Your task to perform on an android device: turn off data saver in the chrome app Image 0: 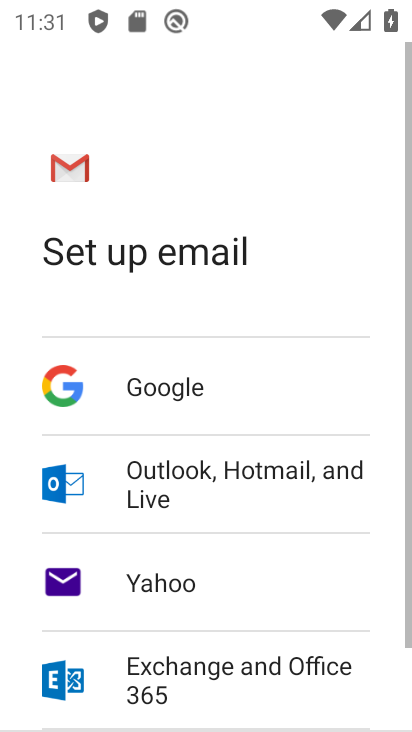
Step 0: press back button
Your task to perform on an android device: turn off data saver in the chrome app Image 1: 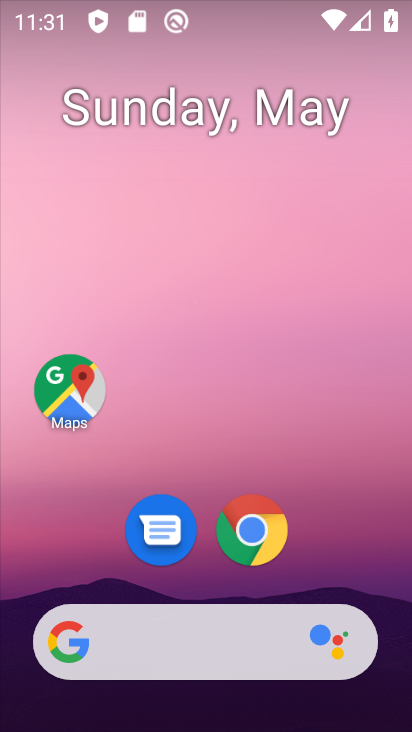
Step 1: click (243, 542)
Your task to perform on an android device: turn off data saver in the chrome app Image 2: 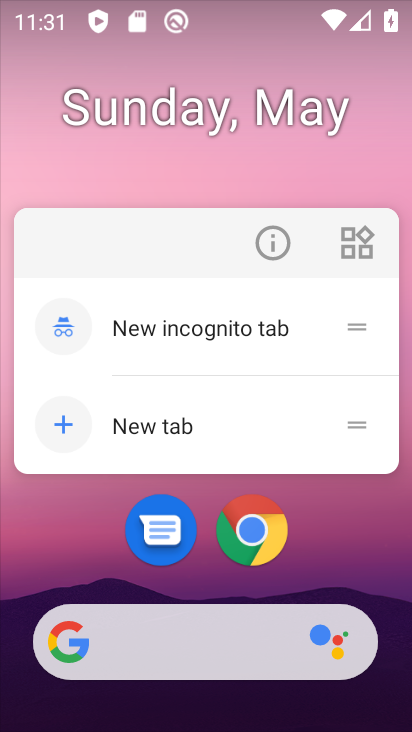
Step 2: click (263, 522)
Your task to perform on an android device: turn off data saver in the chrome app Image 3: 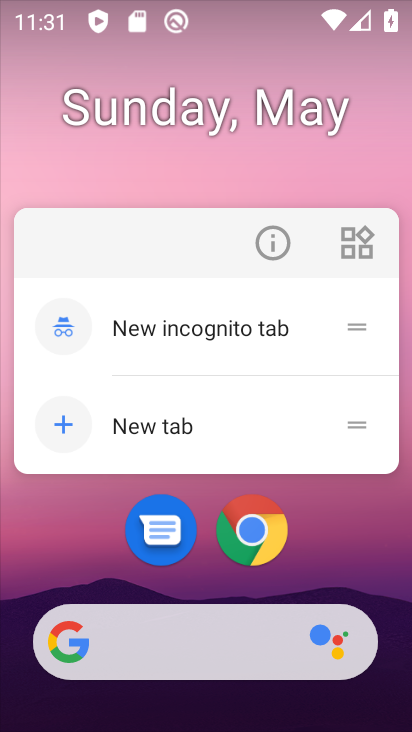
Step 3: click (264, 519)
Your task to perform on an android device: turn off data saver in the chrome app Image 4: 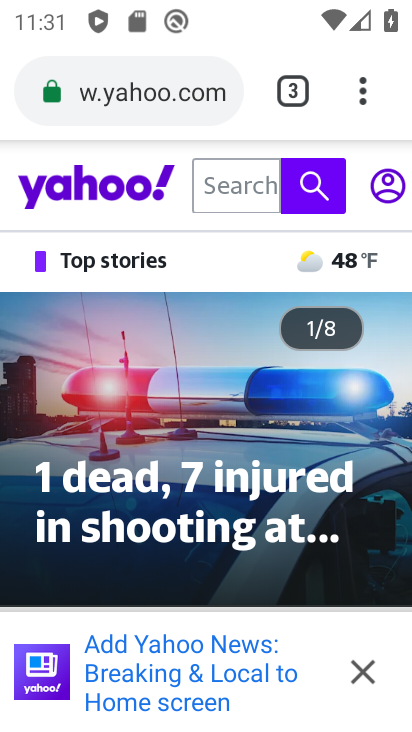
Step 4: drag from (359, 81) to (119, 551)
Your task to perform on an android device: turn off data saver in the chrome app Image 5: 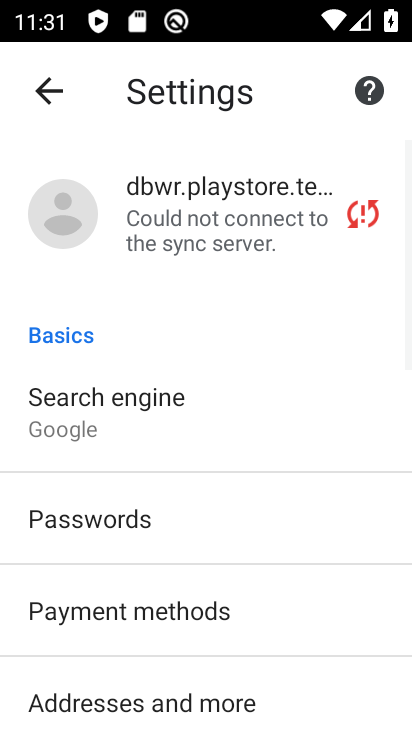
Step 5: drag from (115, 616) to (233, 111)
Your task to perform on an android device: turn off data saver in the chrome app Image 6: 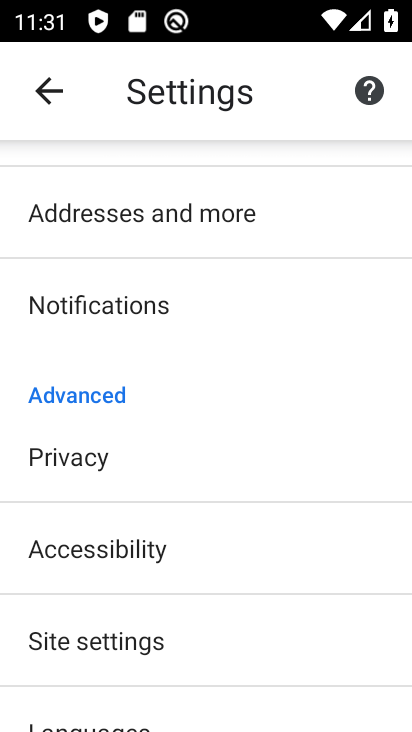
Step 6: click (111, 640)
Your task to perform on an android device: turn off data saver in the chrome app Image 7: 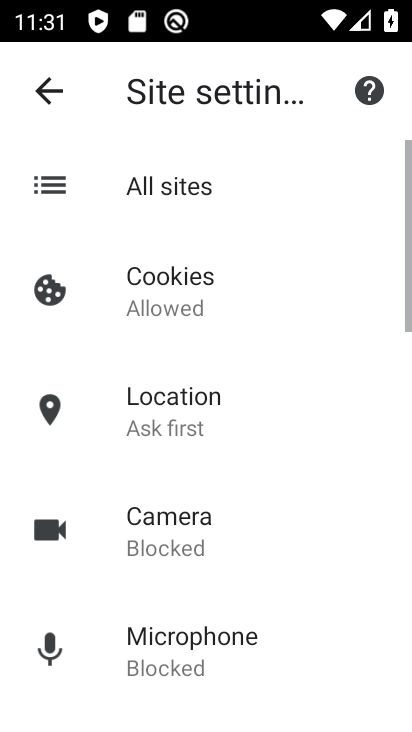
Step 7: drag from (232, 617) to (308, 11)
Your task to perform on an android device: turn off data saver in the chrome app Image 8: 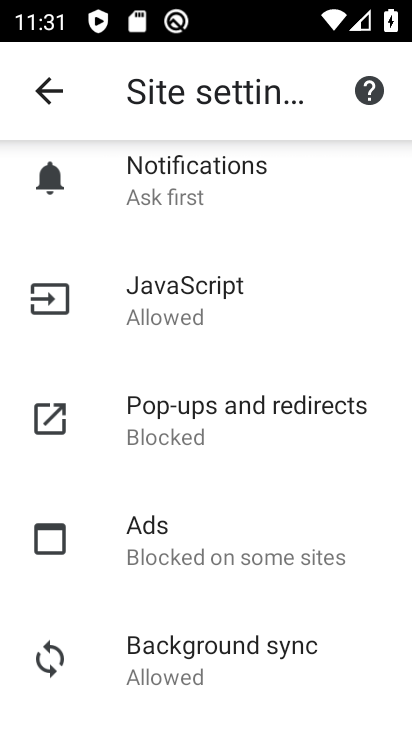
Step 8: drag from (216, 644) to (279, 150)
Your task to perform on an android device: turn off data saver in the chrome app Image 9: 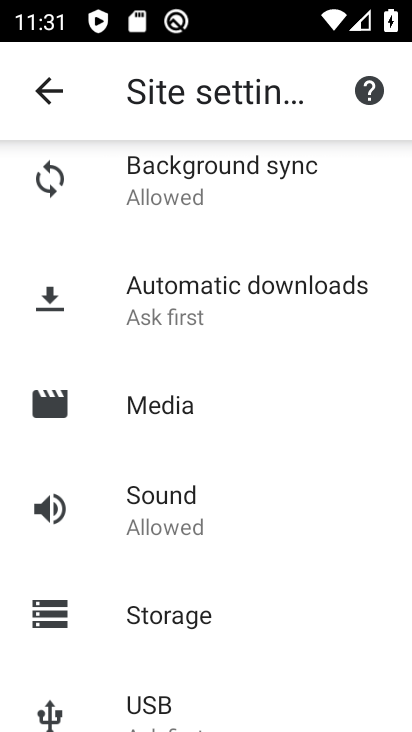
Step 9: click (43, 72)
Your task to perform on an android device: turn off data saver in the chrome app Image 10: 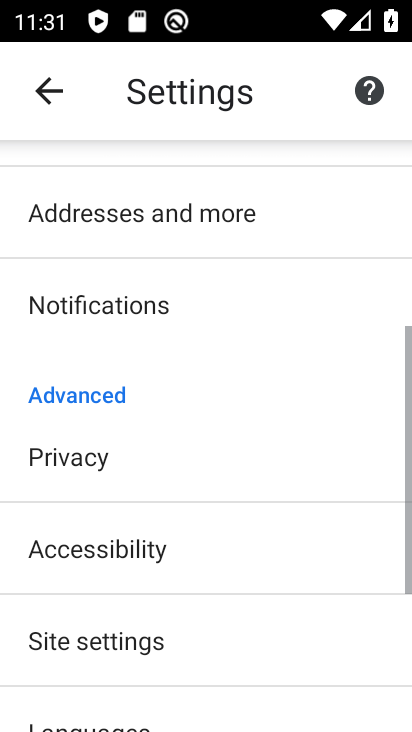
Step 10: drag from (136, 643) to (216, 139)
Your task to perform on an android device: turn off data saver in the chrome app Image 11: 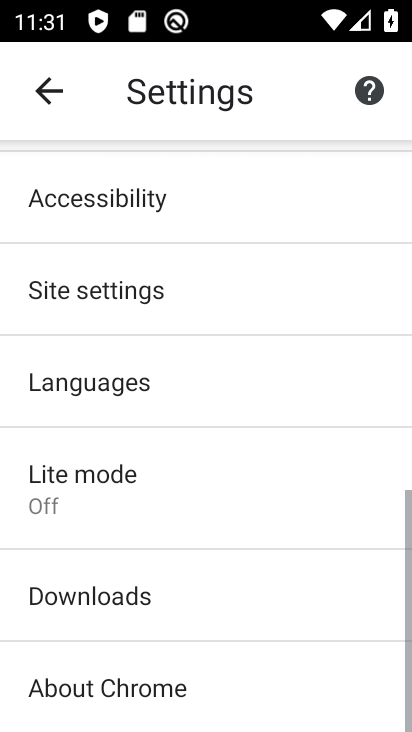
Step 11: click (103, 475)
Your task to perform on an android device: turn off data saver in the chrome app Image 12: 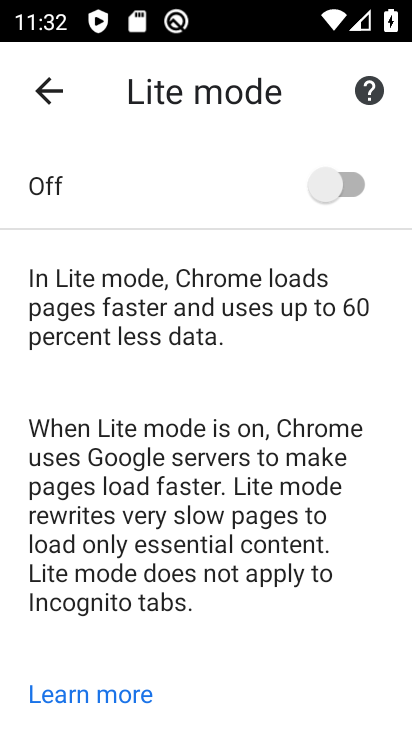
Step 12: task complete